Your task to perform on an android device: Do I have any events tomorrow? Image 0: 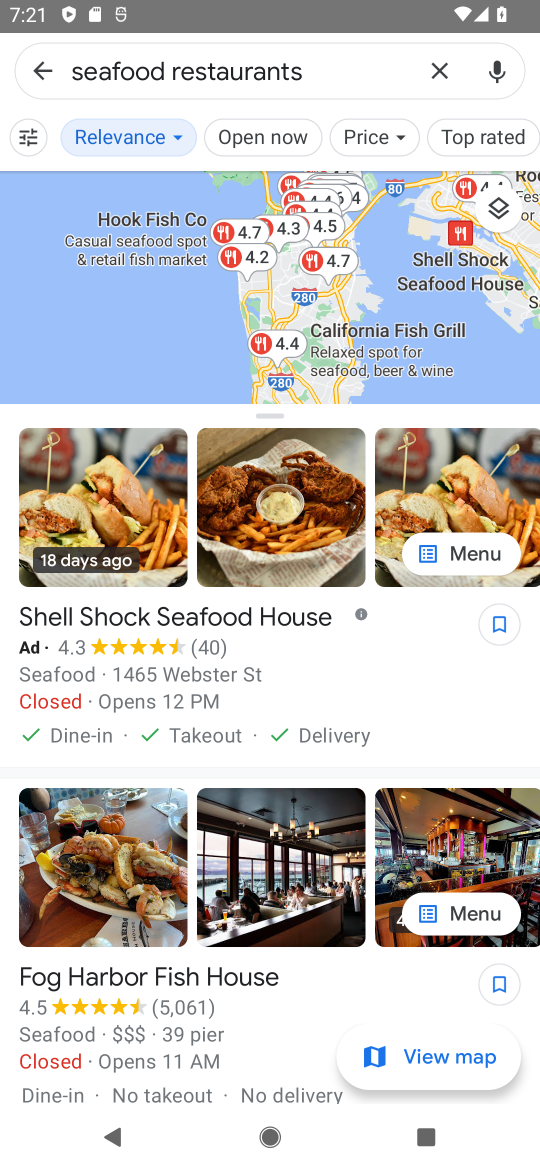
Step 0: press home button
Your task to perform on an android device: Do I have any events tomorrow? Image 1: 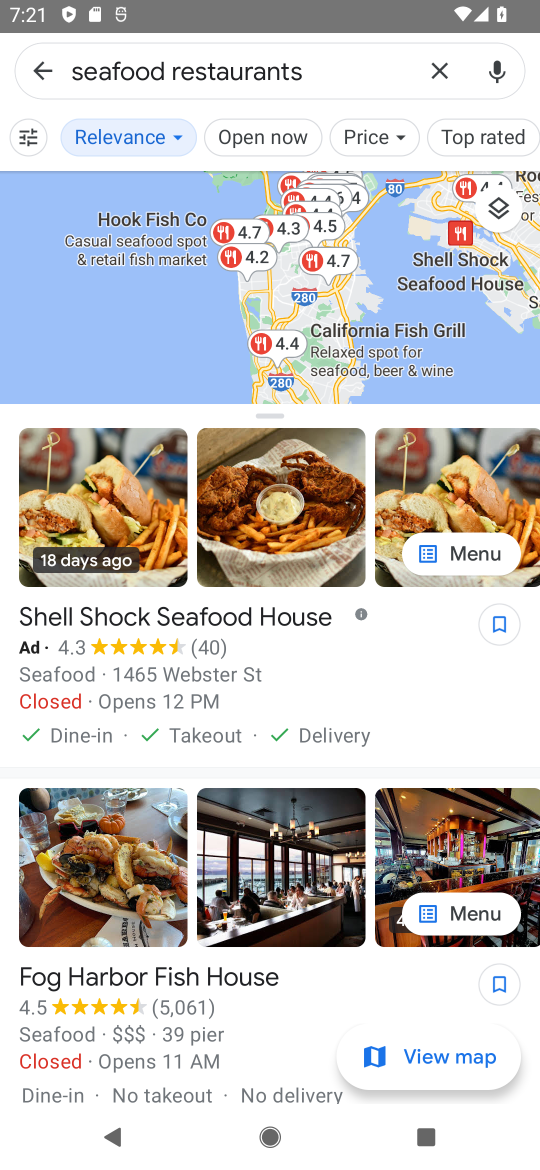
Step 1: press home button
Your task to perform on an android device: Do I have any events tomorrow? Image 2: 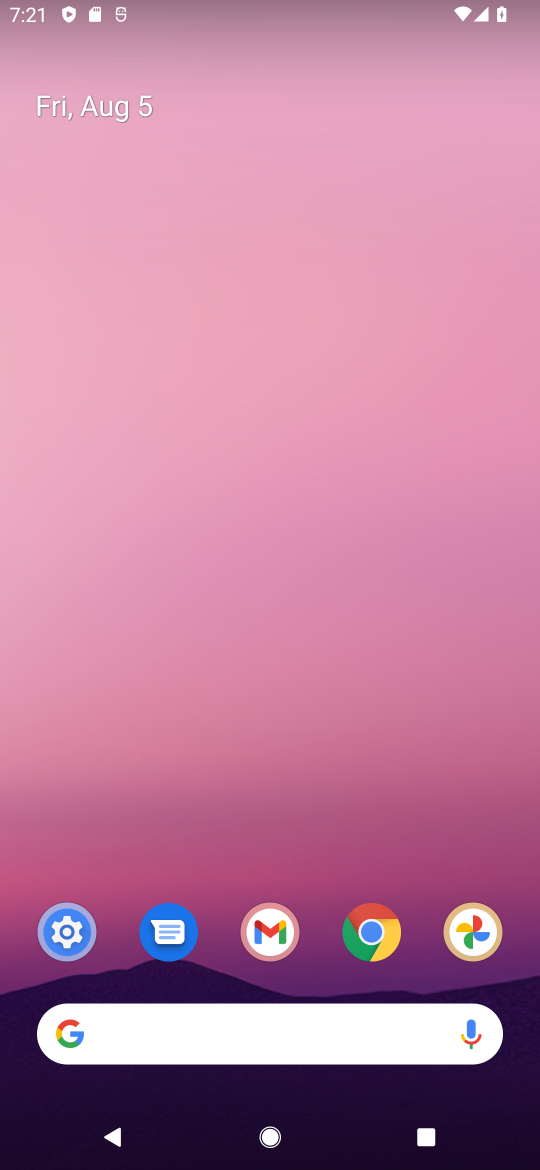
Step 2: drag from (332, 876) to (345, 279)
Your task to perform on an android device: Do I have any events tomorrow? Image 3: 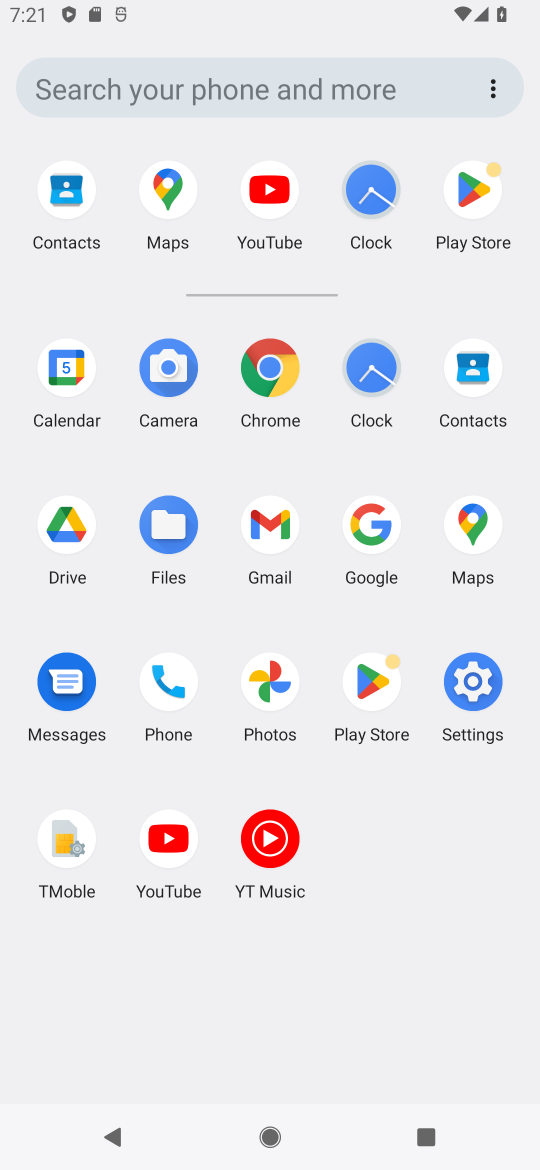
Step 3: click (476, 373)
Your task to perform on an android device: Do I have any events tomorrow? Image 4: 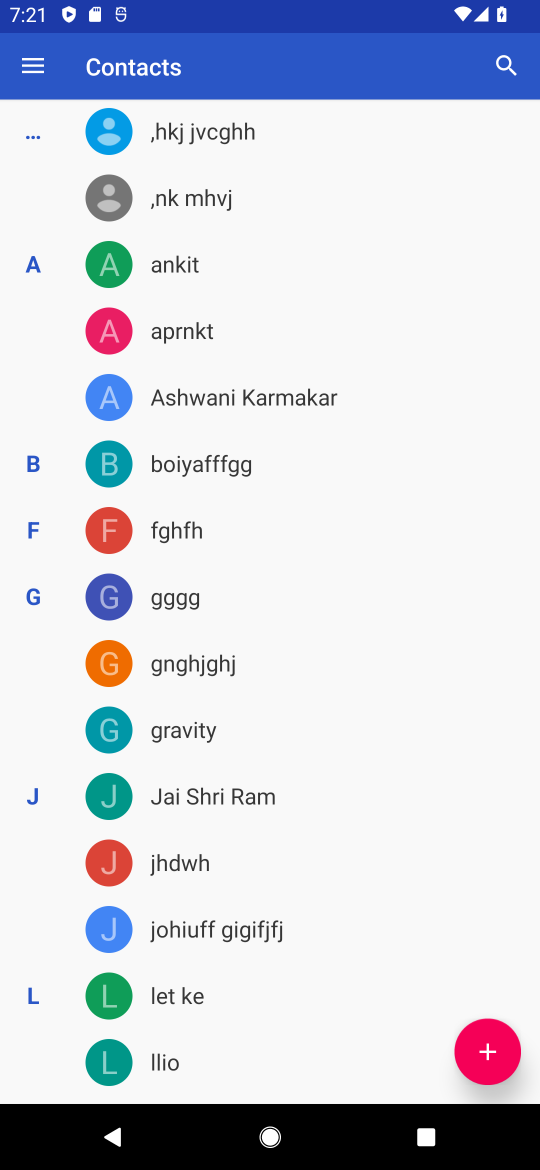
Step 4: press home button
Your task to perform on an android device: Do I have any events tomorrow? Image 5: 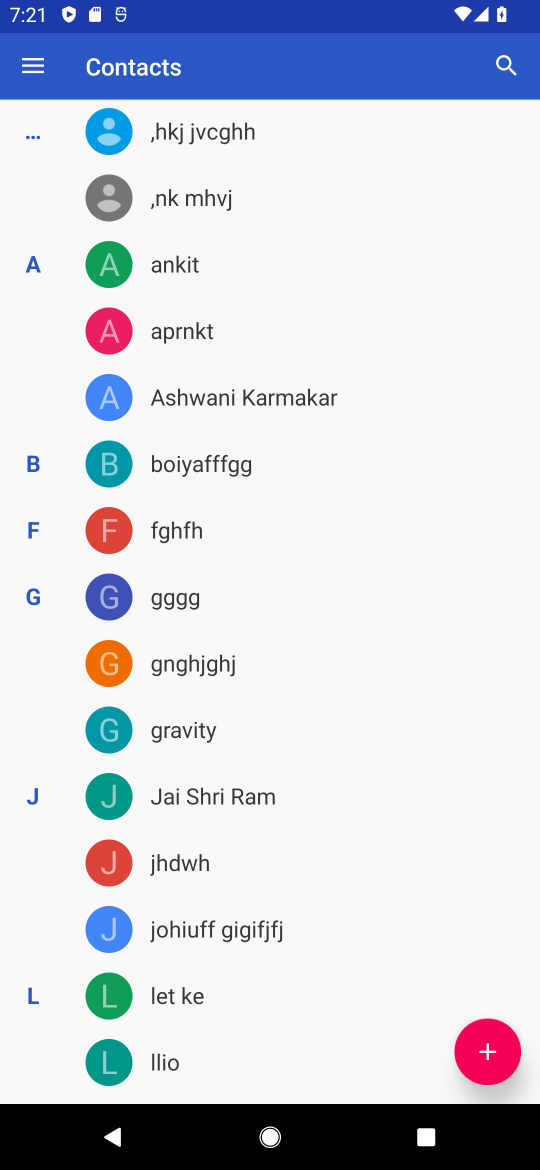
Step 5: press home button
Your task to perform on an android device: Do I have any events tomorrow? Image 6: 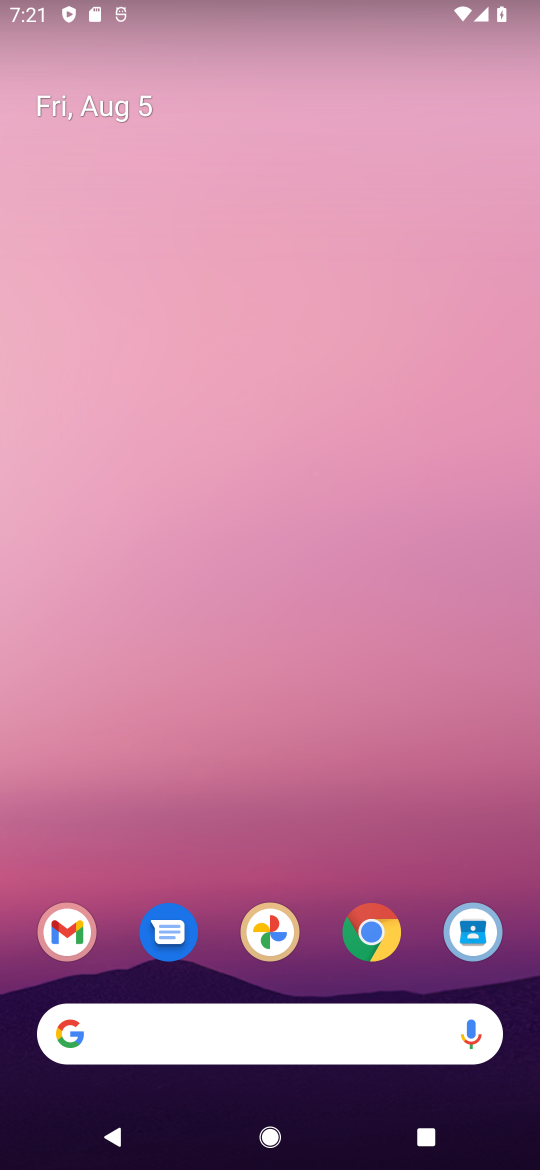
Step 6: drag from (364, 799) to (407, 156)
Your task to perform on an android device: Do I have any events tomorrow? Image 7: 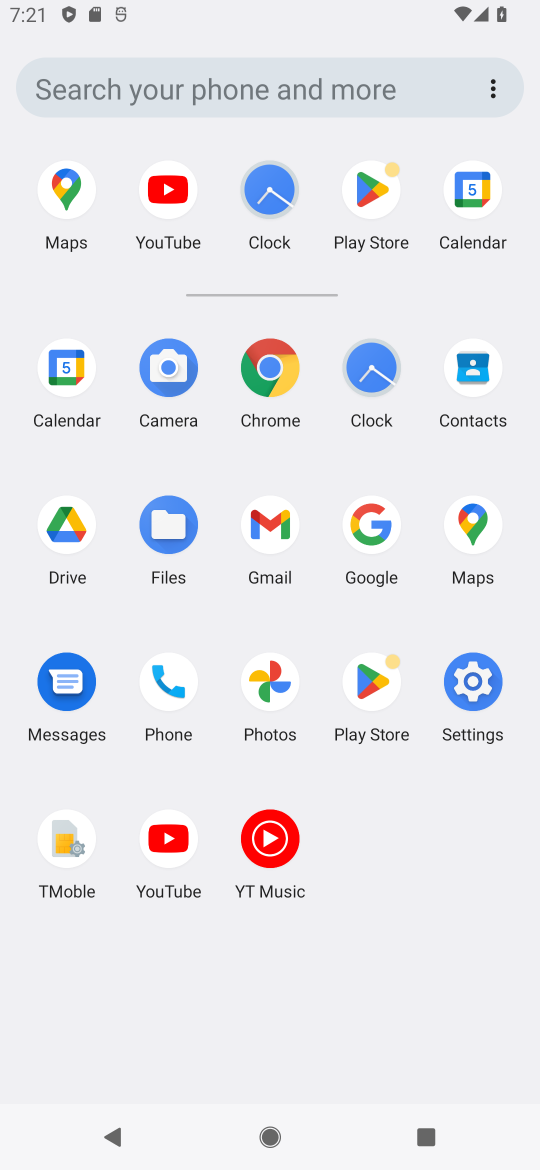
Step 7: click (77, 369)
Your task to perform on an android device: Do I have any events tomorrow? Image 8: 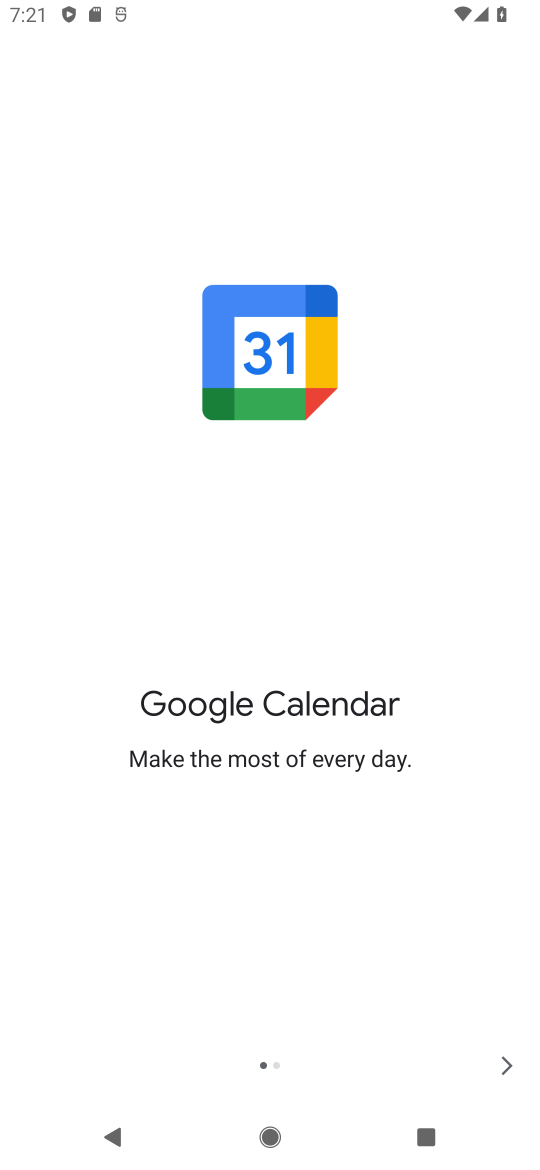
Step 8: click (508, 1059)
Your task to perform on an android device: Do I have any events tomorrow? Image 9: 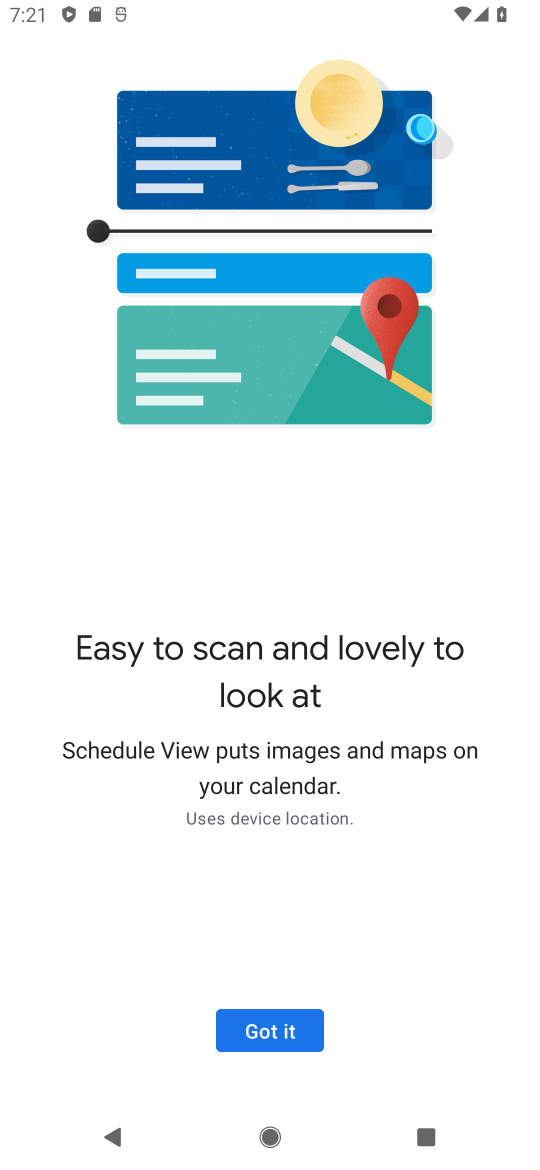
Step 9: click (508, 1058)
Your task to perform on an android device: Do I have any events tomorrow? Image 10: 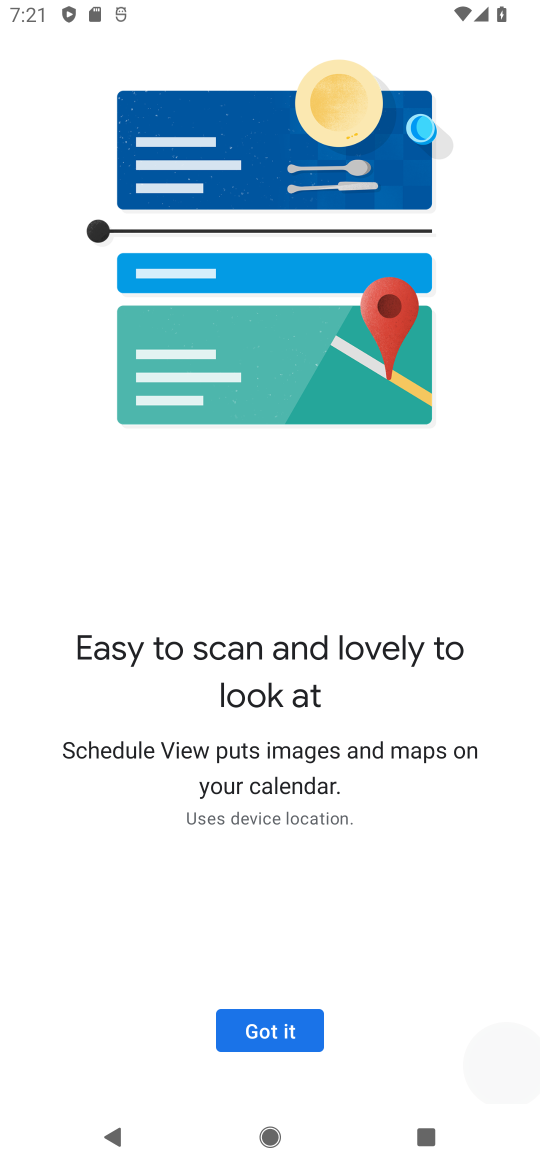
Step 10: click (301, 1027)
Your task to perform on an android device: Do I have any events tomorrow? Image 11: 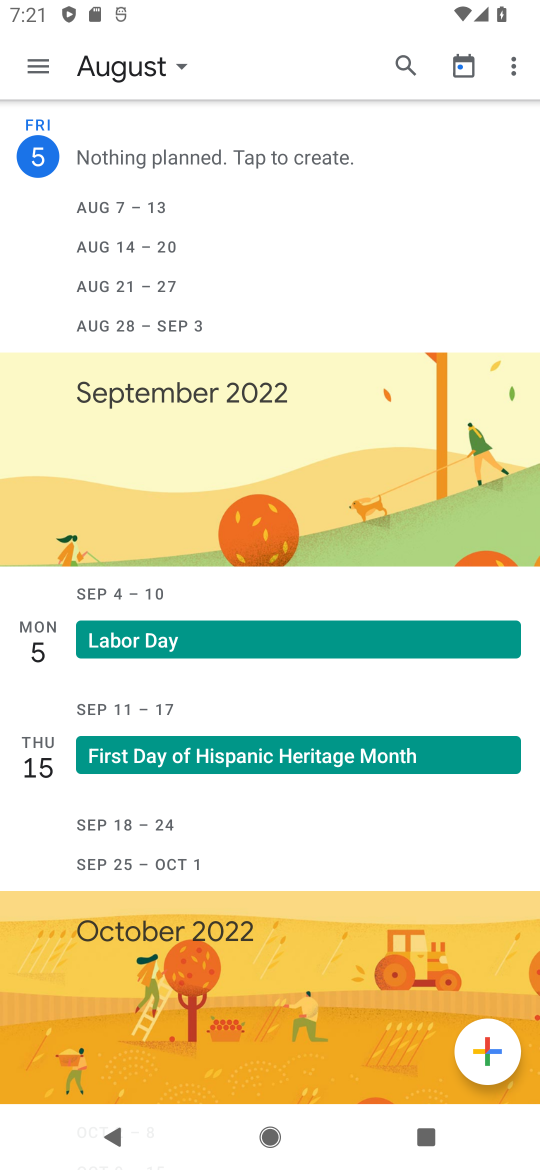
Step 11: click (125, 59)
Your task to perform on an android device: Do I have any events tomorrow? Image 12: 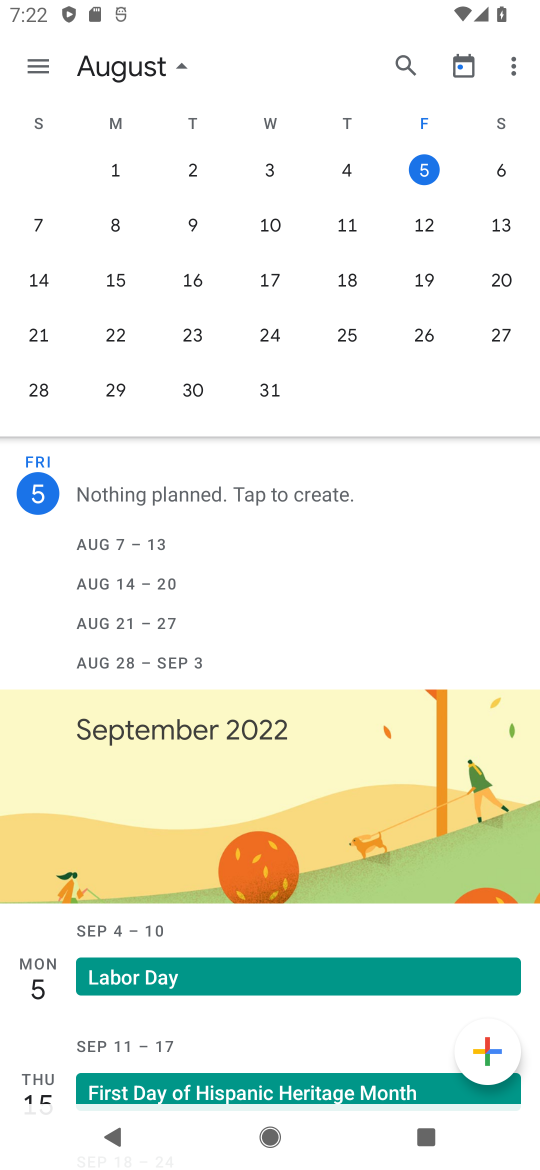
Step 12: click (179, 63)
Your task to perform on an android device: Do I have any events tomorrow? Image 13: 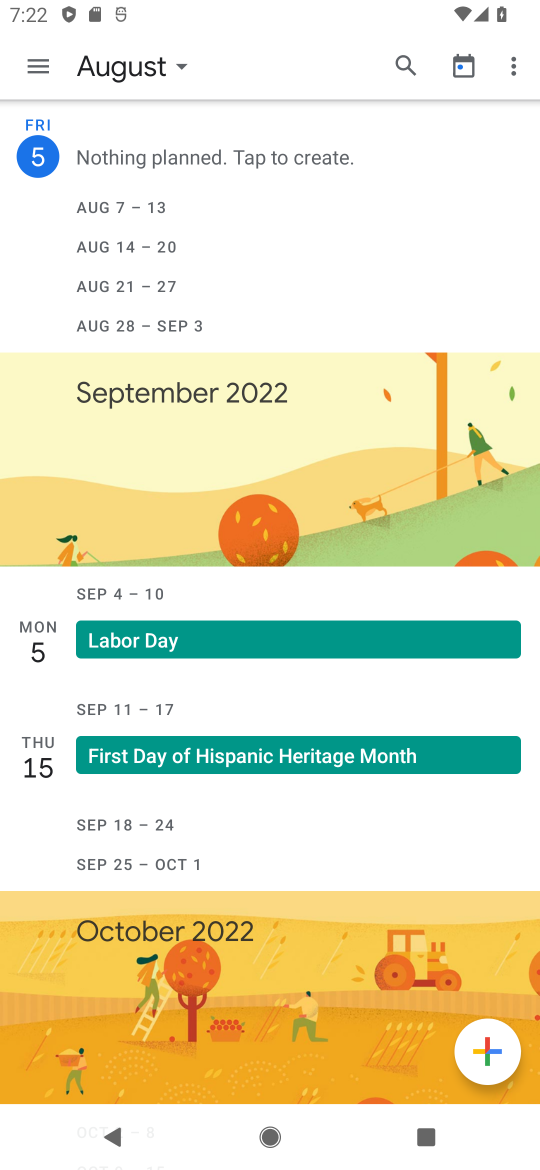
Step 13: click (172, 57)
Your task to perform on an android device: Do I have any events tomorrow? Image 14: 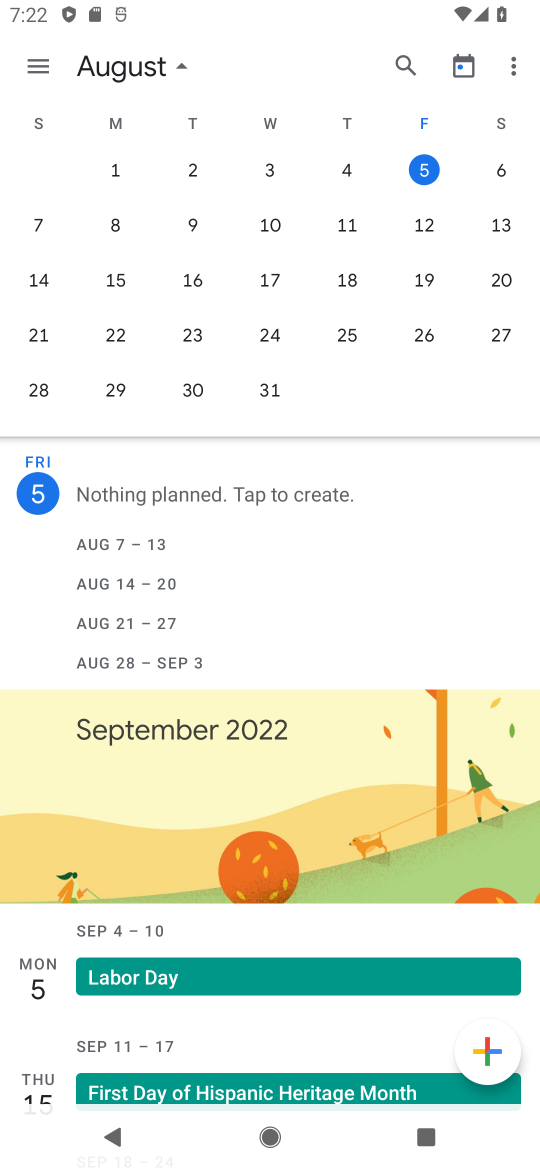
Step 14: click (489, 161)
Your task to perform on an android device: Do I have any events tomorrow? Image 15: 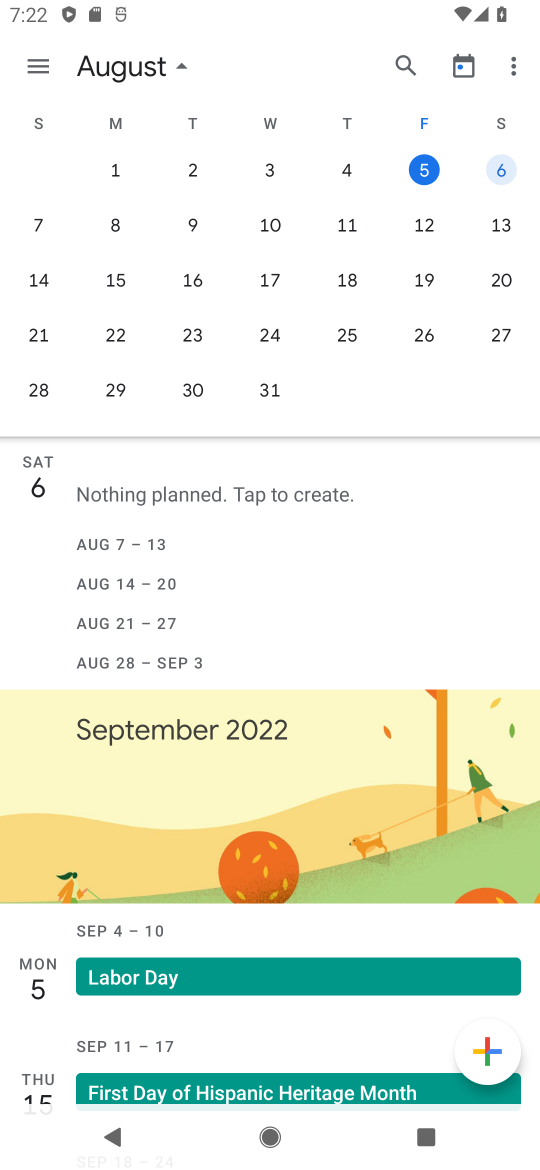
Step 15: click (489, 161)
Your task to perform on an android device: Do I have any events tomorrow? Image 16: 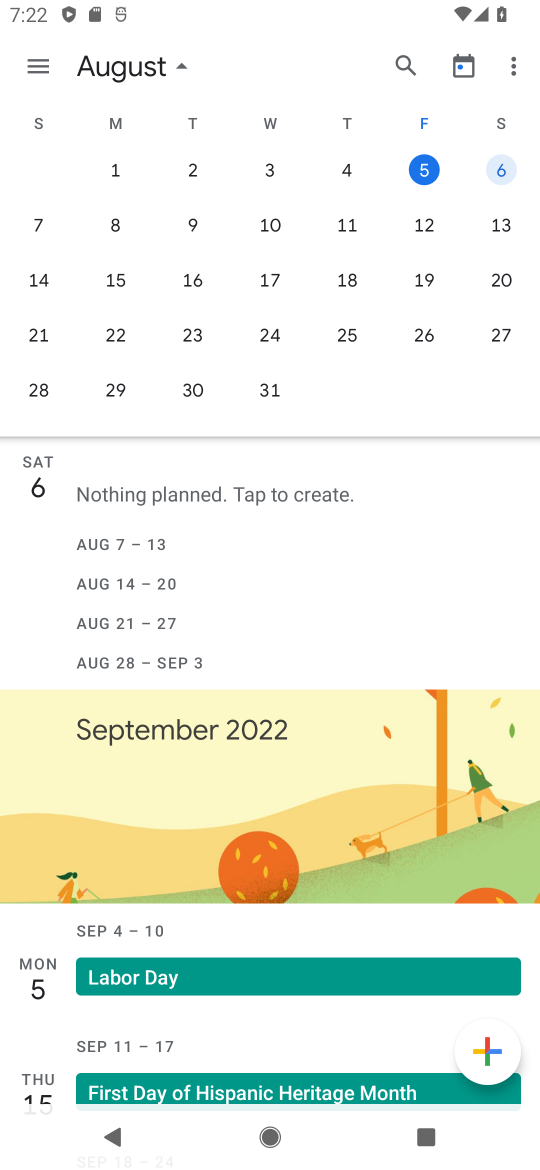
Step 16: click (500, 167)
Your task to perform on an android device: Do I have any events tomorrow? Image 17: 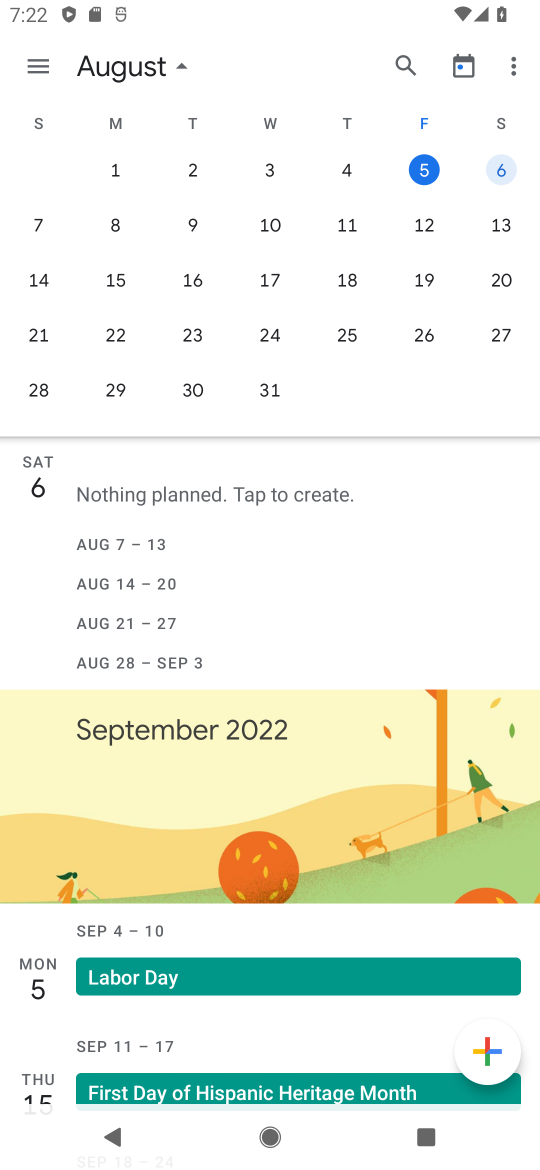
Step 17: task complete